Your task to perform on an android device: open app "Booking.com: Hotels and more" (install if not already installed) Image 0: 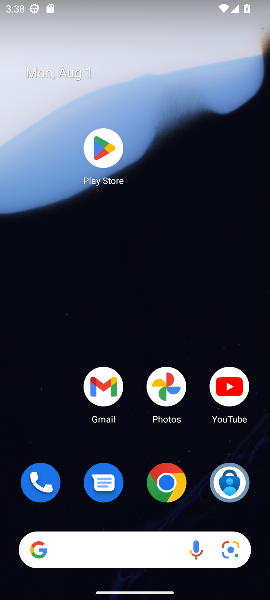
Step 0: press home button
Your task to perform on an android device: open app "Booking.com: Hotels and more" (install if not already installed) Image 1: 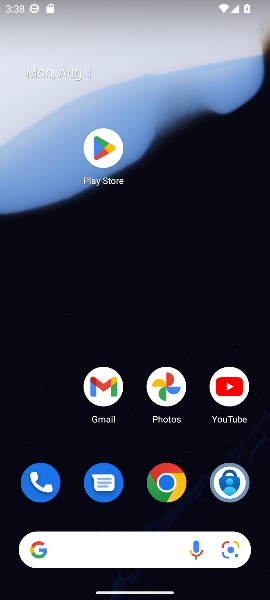
Step 1: click (99, 147)
Your task to perform on an android device: open app "Booking.com: Hotels and more" (install if not already installed) Image 2: 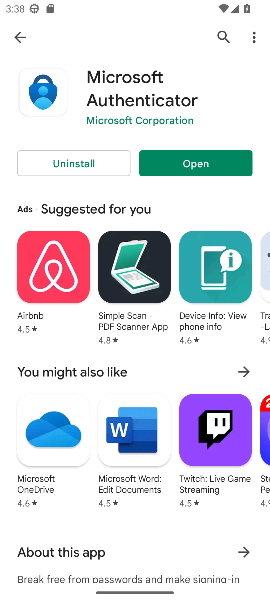
Step 2: click (217, 36)
Your task to perform on an android device: open app "Booking.com: Hotels and more" (install if not already installed) Image 3: 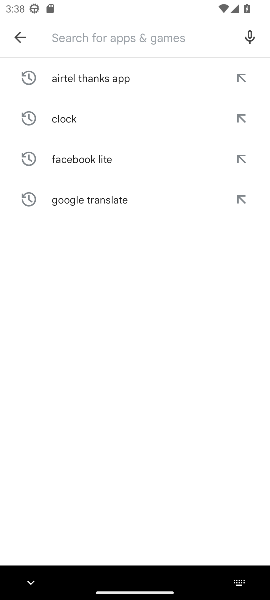
Step 3: type "Booking.com: Hotels and more"
Your task to perform on an android device: open app "Booking.com: Hotels and more" (install if not already installed) Image 4: 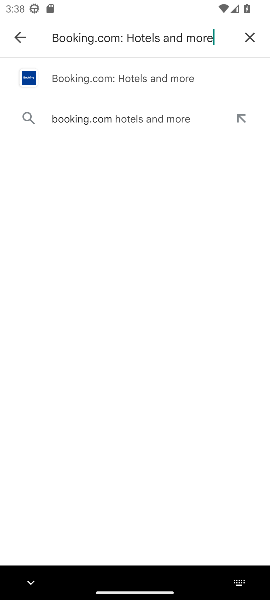
Step 4: click (110, 74)
Your task to perform on an android device: open app "Booking.com: Hotels and more" (install if not already installed) Image 5: 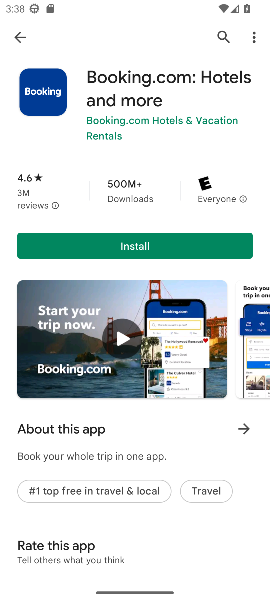
Step 5: click (137, 234)
Your task to perform on an android device: open app "Booking.com: Hotels and more" (install if not already installed) Image 6: 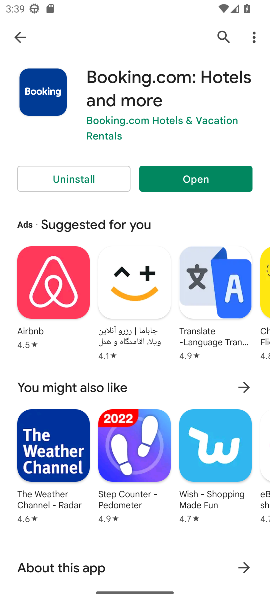
Step 6: click (195, 179)
Your task to perform on an android device: open app "Booking.com: Hotels and more" (install if not already installed) Image 7: 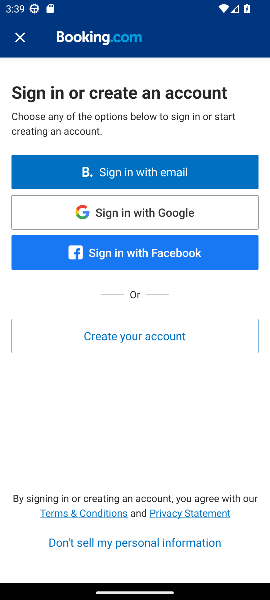
Step 7: task complete